Your task to perform on an android device: find which apps use the phone's location Image 0: 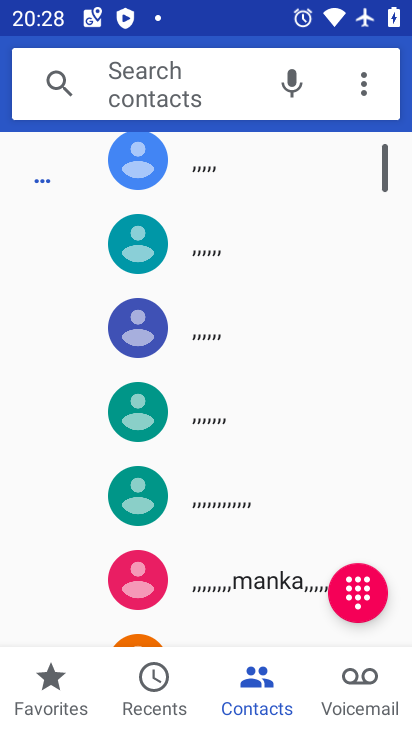
Step 0: press home button
Your task to perform on an android device: find which apps use the phone's location Image 1: 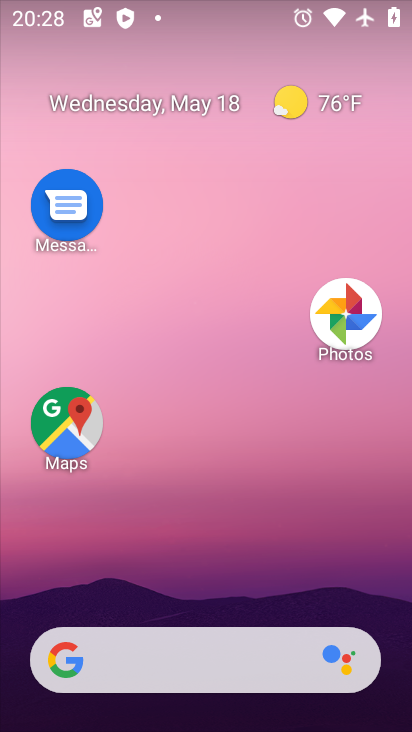
Step 1: drag from (224, 600) to (296, 484)
Your task to perform on an android device: find which apps use the phone's location Image 2: 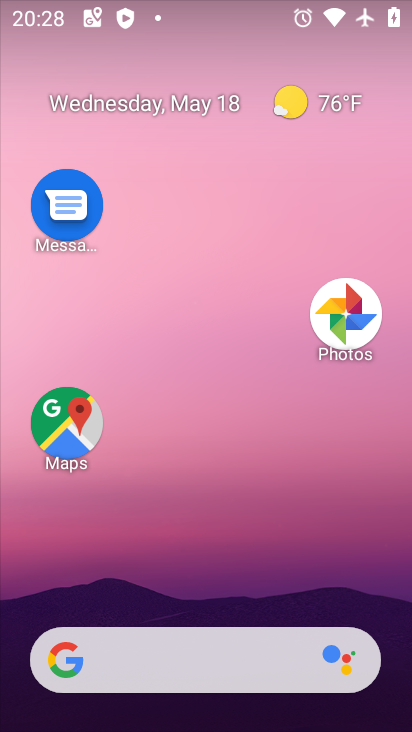
Step 2: drag from (204, 589) to (146, 83)
Your task to perform on an android device: find which apps use the phone's location Image 3: 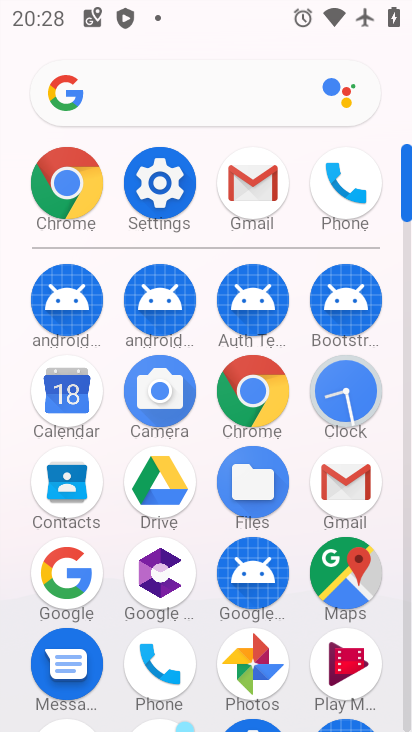
Step 3: click (157, 185)
Your task to perform on an android device: find which apps use the phone's location Image 4: 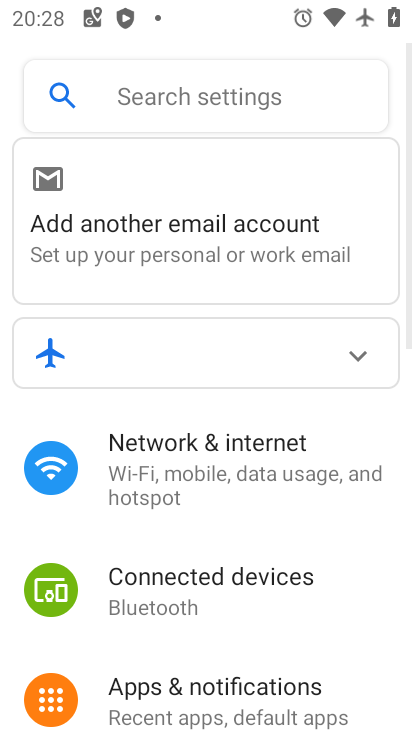
Step 4: drag from (265, 609) to (225, 112)
Your task to perform on an android device: find which apps use the phone's location Image 5: 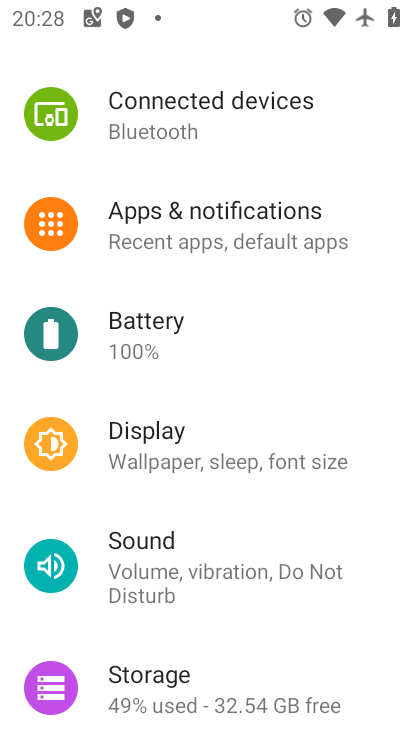
Step 5: drag from (199, 575) to (158, 141)
Your task to perform on an android device: find which apps use the phone's location Image 6: 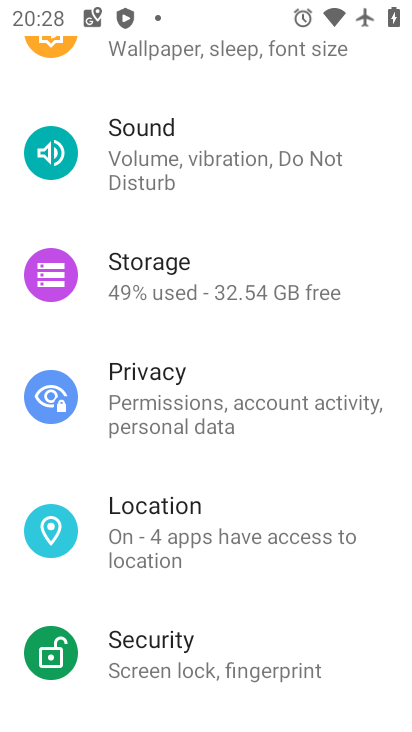
Step 6: click (150, 519)
Your task to perform on an android device: find which apps use the phone's location Image 7: 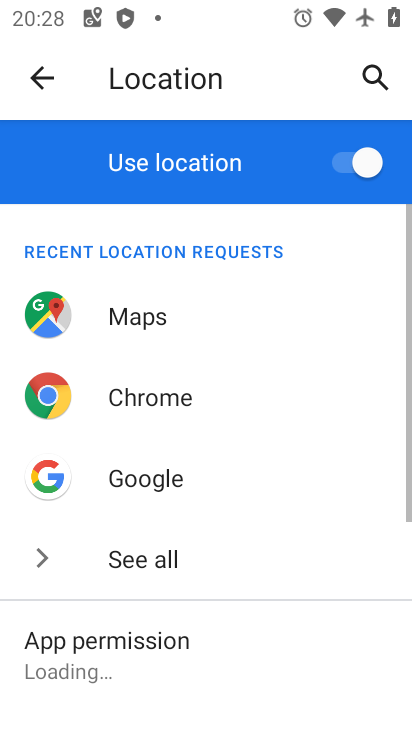
Step 7: click (121, 618)
Your task to perform on an android device: find which apps use the phone's location Image 8: 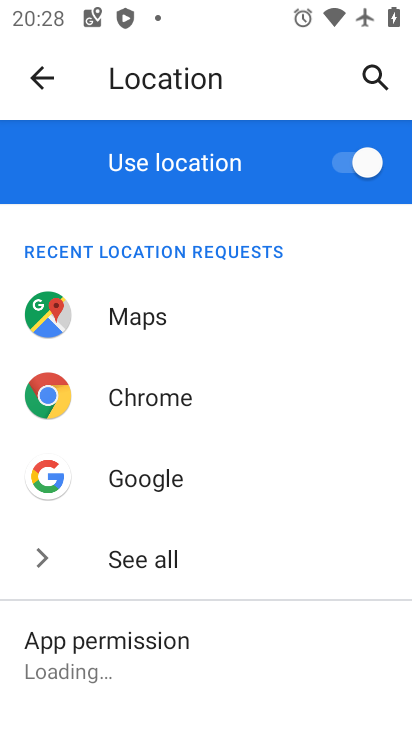
Step 8: task complete